Your task to perform on an android device: check battery use Image 0: 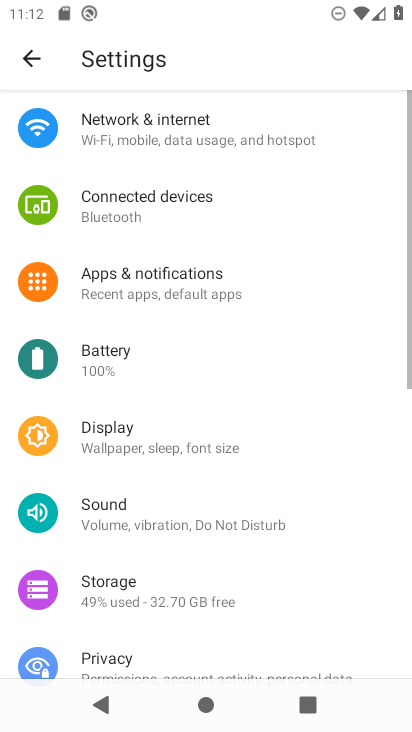
Step 0: press home button
Your task to perform on an android device: check battery use Image 1: 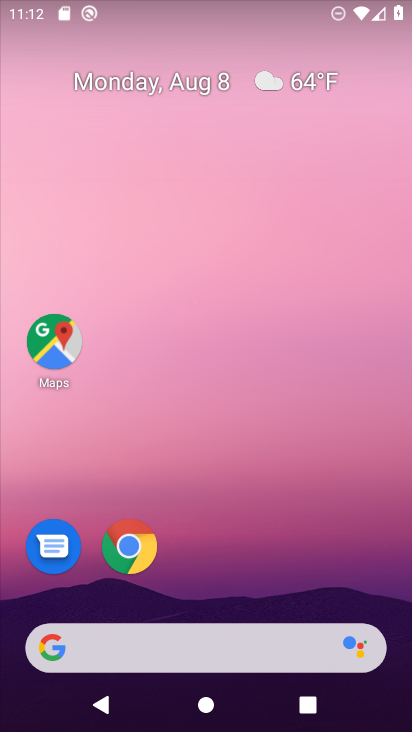
Step 1: drag from (222, 594) to (218, 65)
Your task to perform on an android device: check battery use Image 2: 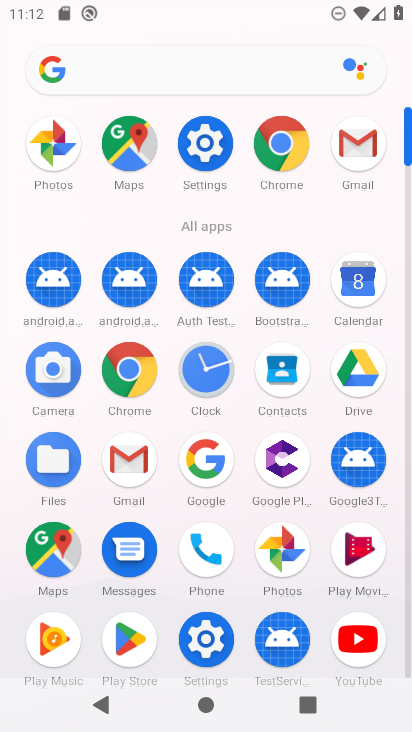
Step 2: click (200, 139)
Your task to perform on an android device: check battery use Image 3: 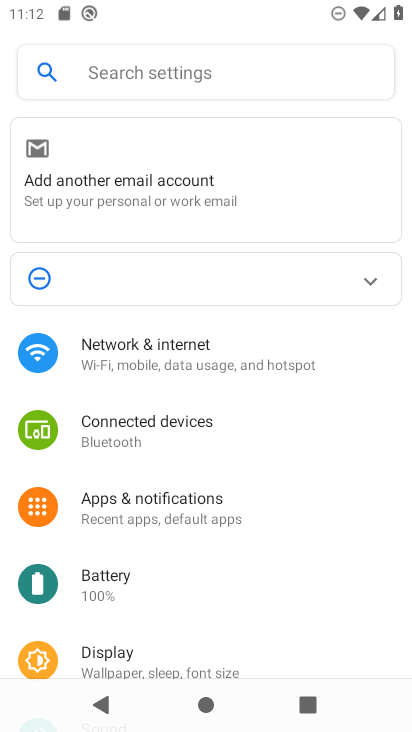
Step 3: click (148, 581)
Your task to perform on an android device: check battery use Image 4: 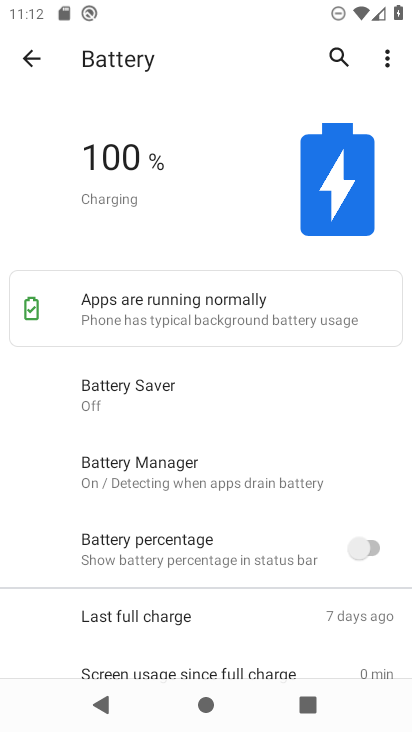
Step 4: click (390, 62)
Your task to perform on an android device: check battery use Image 5: 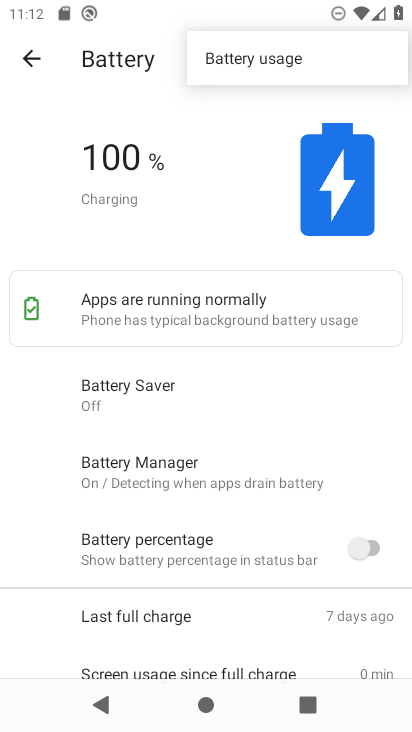
Step 5: click (255, 65)
Your task to perform on an android device: check battery use Image 6: 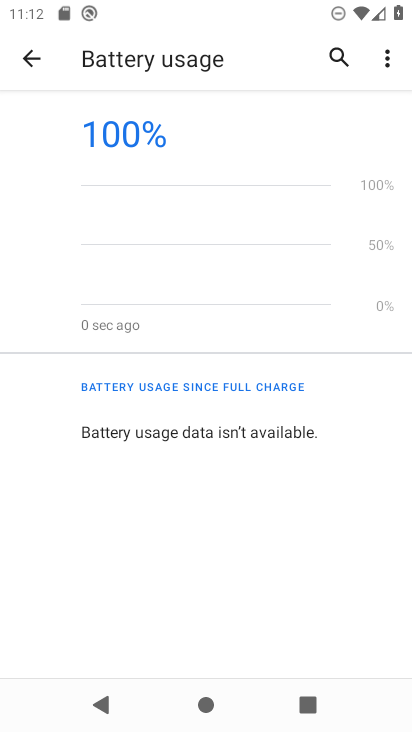
Step 6: task complete